Your task to perform on an android device: Open the map Image 0: 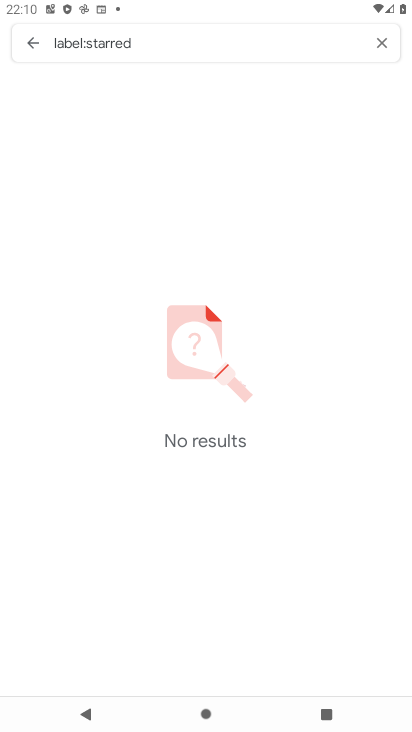
Step 0: press home button
Your task to perform on an android device: Open the map Image 1: 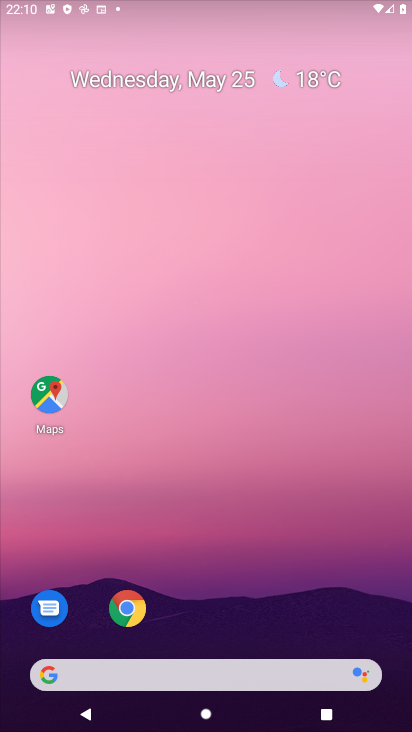
Step 1: click (47, 384)
Your task to perform on an android device: Open the map Image 2: 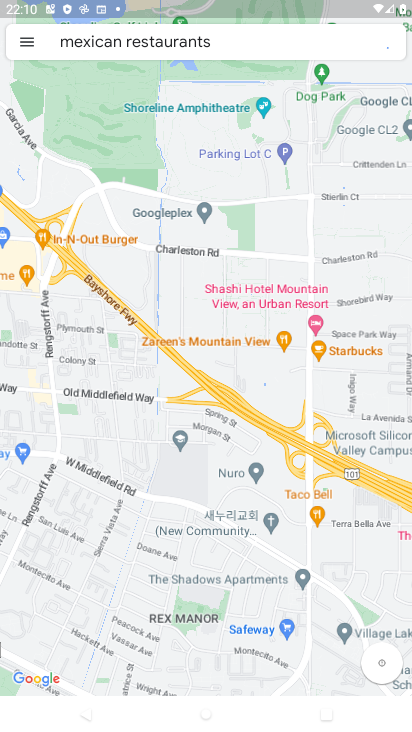
Step 2: task complete